Your task to perform on an android device: toggle pop-ups in chrome Image 0: 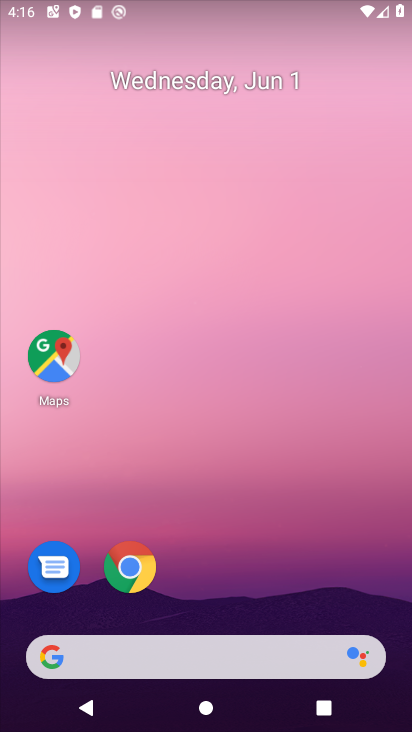
Step 0: click (137, 575)
Your task to perform on an android device: toggle pop-ups in chrome Image 1: 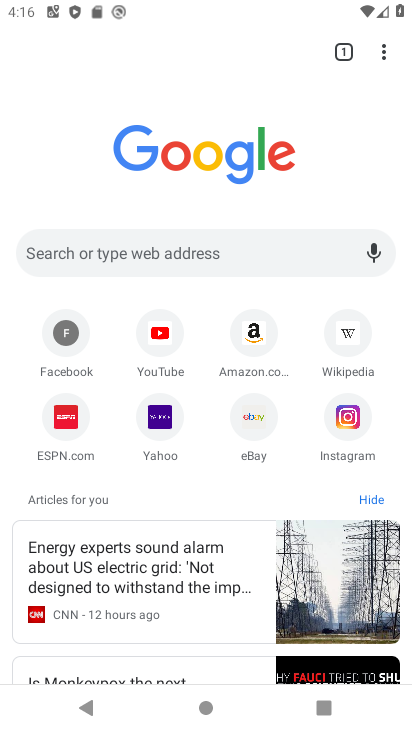
Step 1: click (385, 57)
Your task to perform on an android device: toggle pop-ups in chrome Image 2: 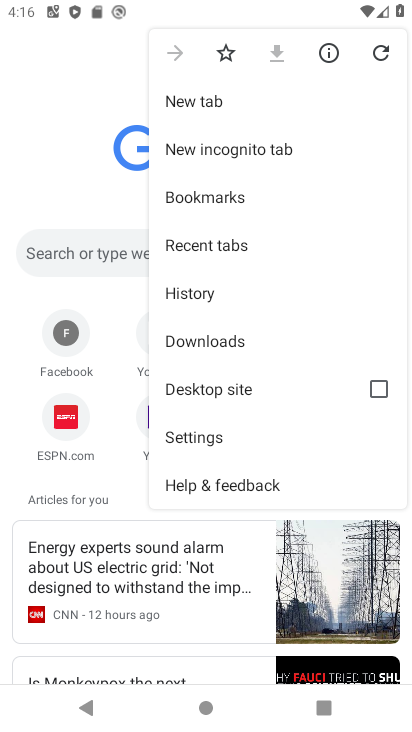
Step 2: click (216, 441)
Your task to perform on an android device: toggle pop-ups in chrome Image 3: 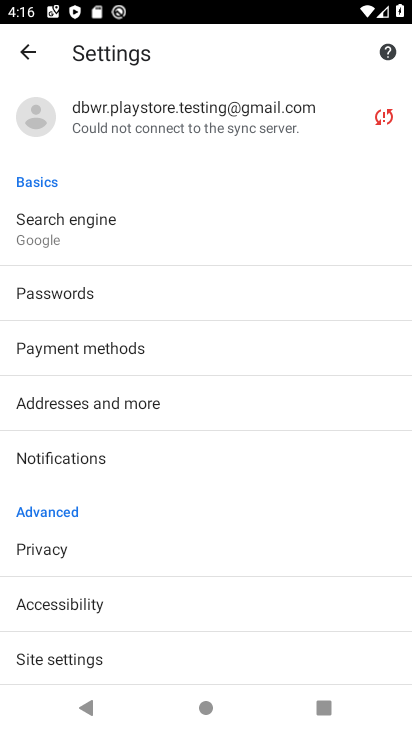
Step 3: click (80, 662)
Your task to perform on an android device: toggle pop-ups in chrome Image 4: 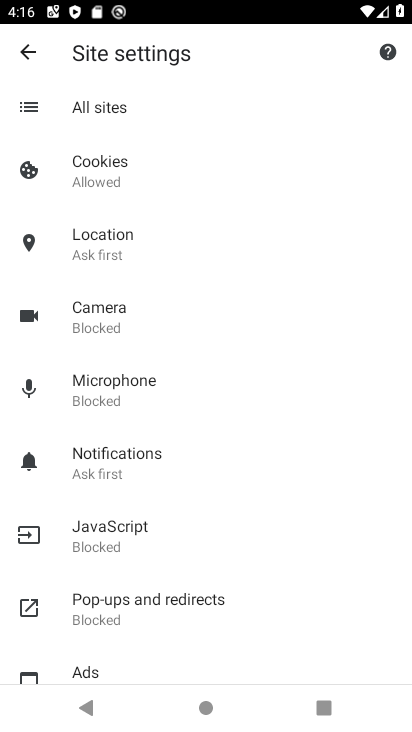
Step 4: click (103, 615)
Your task to perform on an android device: toggle pop-ups in chrome Image 5: 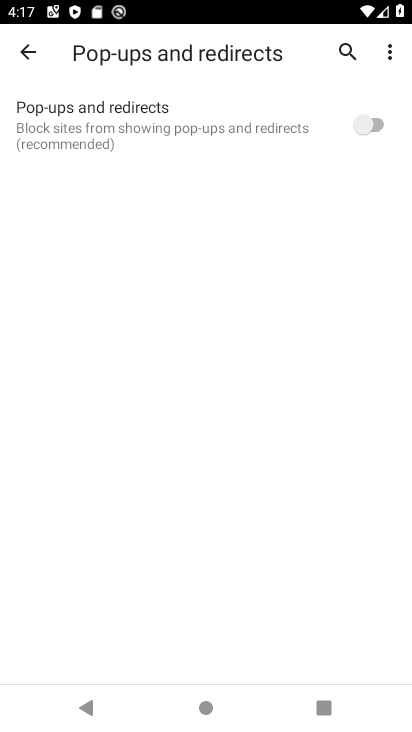
Step 5: task complete